Your task to perform on an android device: turn on location history Image 0: 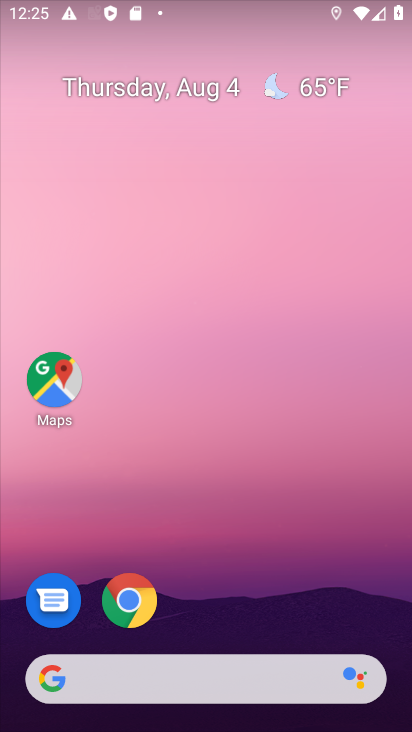
Step 0: drag from (250, 639) to (215, 44)
Your task to perform on an android device: turn on location history Image 1: 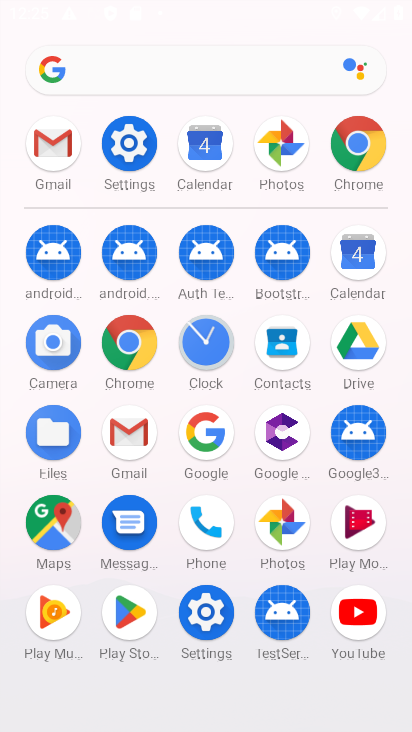
Step 1: click (108, 148)
Your task to perform on an android device: turn on location history Image 2: 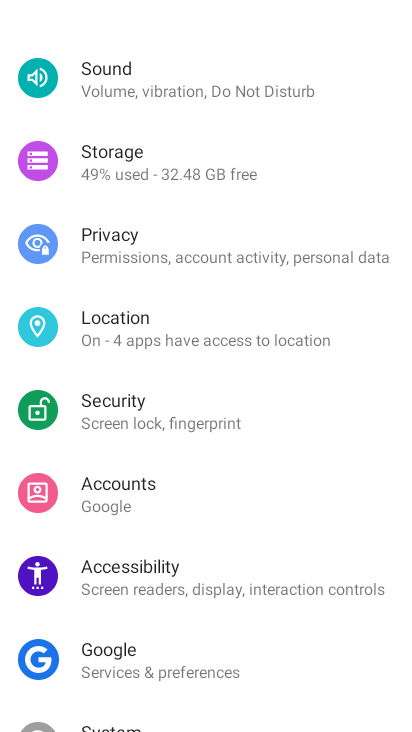
Step 2: click (110, 326)
Your task to perform on an android device: turn on location history Image 3: 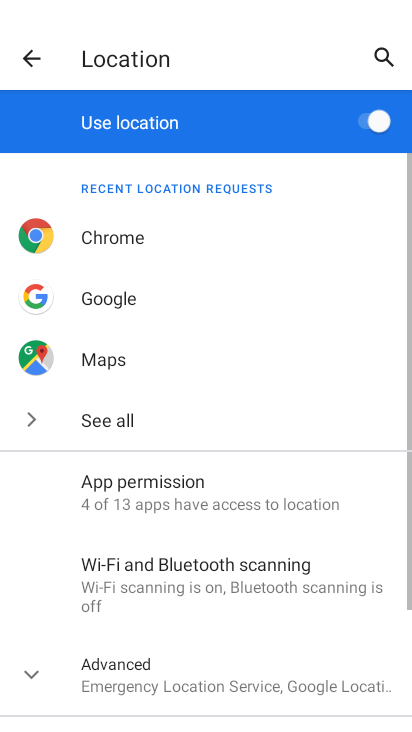
Step 3: click (167, 645)
Your task to perform on an android device: turn on location history Image 4: 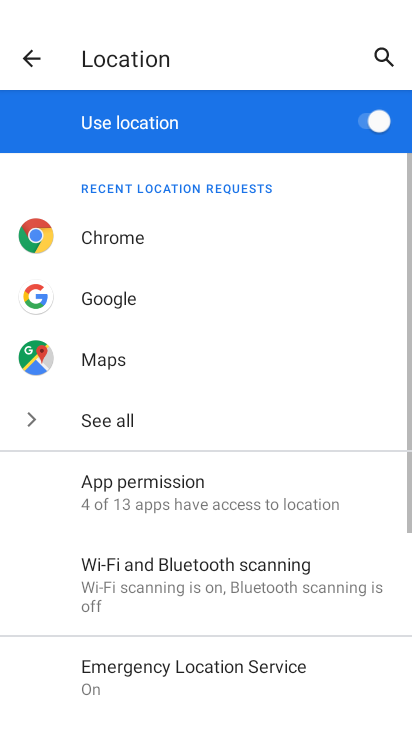
Step 4: drag from (167, 645) to (145, 63)
Your task to perform on an android device: turn on location history Image 5: 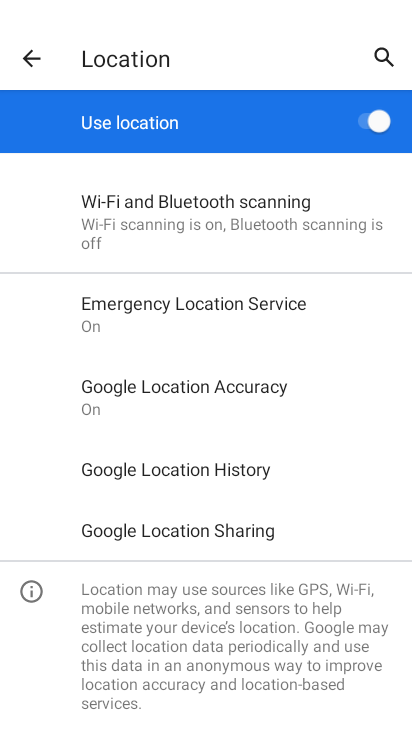
Step 5: click (185, 485)
Your task to perform on an android device: turn on location history Image 6: 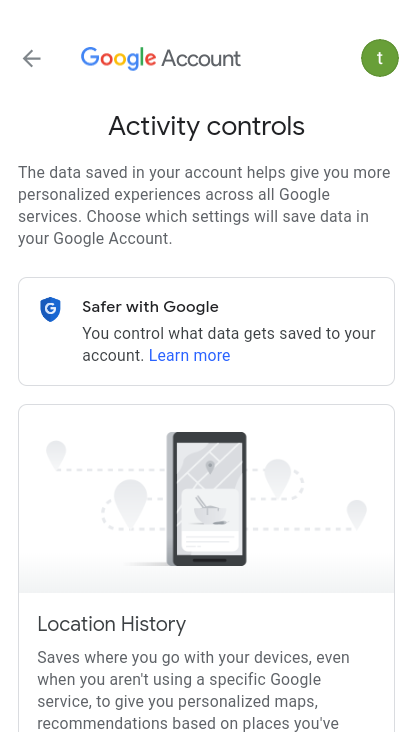
Step 6: drag from (301, 573) to (292, 152)
Your task to perform on an android device: turn on location history Image 7: 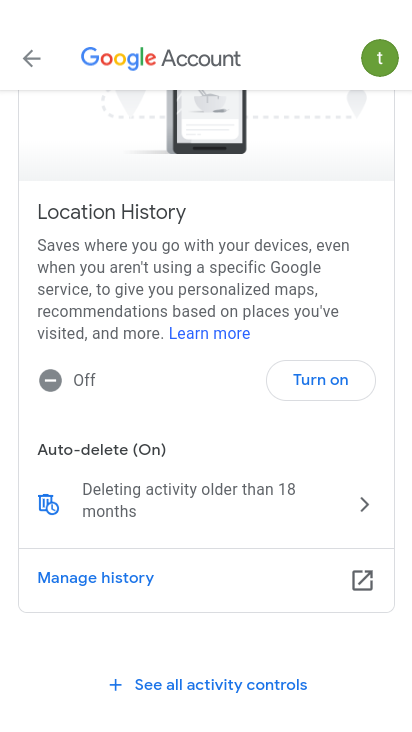
Step 7: click (354, 384)
Your task to perform on an android device: turn on location history Image 8: 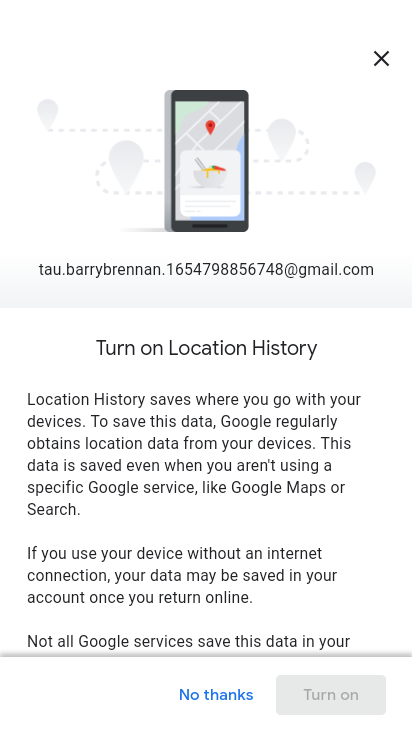
Step 8: drag from (263, 557) to (340, 39)
Your task to perform on an android device: turn on location history Image 9: 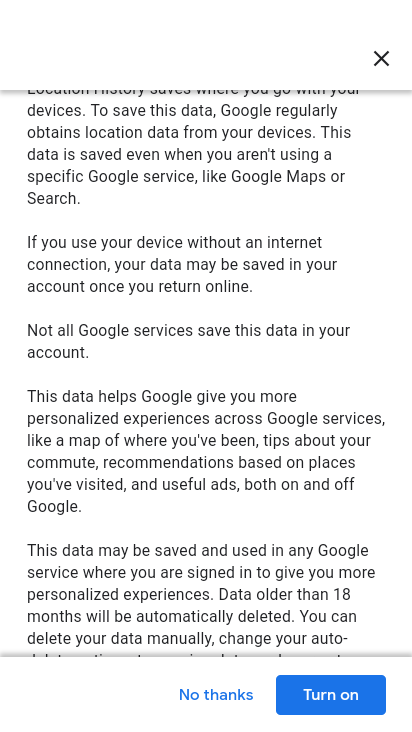
Step 9: click (378, 696)
Your task to perform on an android device: turn on location history Image 10: 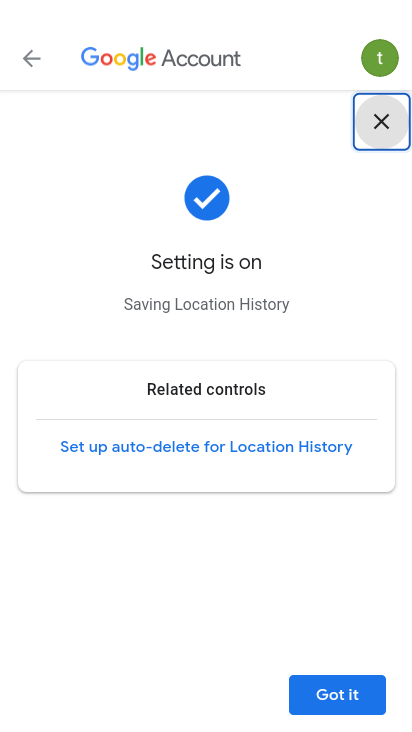
Step 10: task complete